Your task to perform on an android device: turn off airplane mode Image 0: 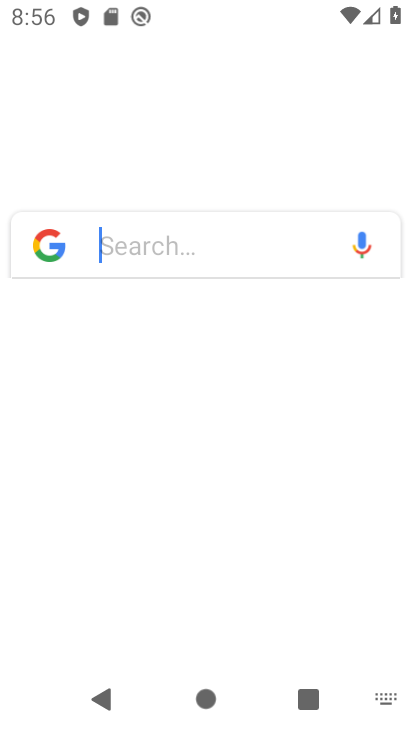
Step 0: click (54, 359)
Your task to perform on an android device: turn off airplane mode Image 1: 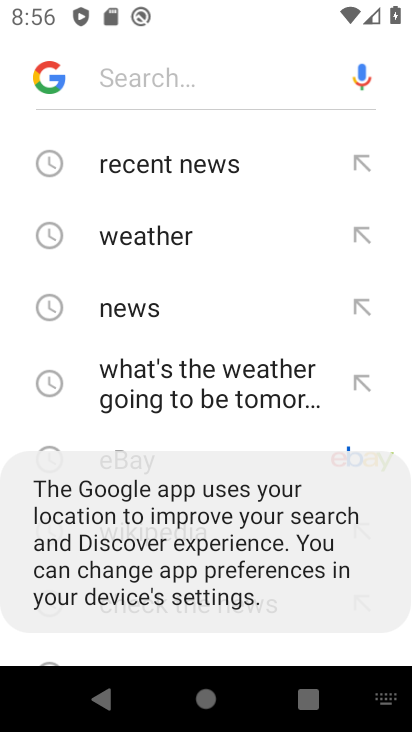
Step 1: task complete